Your task to perform on an android device: move an email to a new category in the gmail app Image 0: 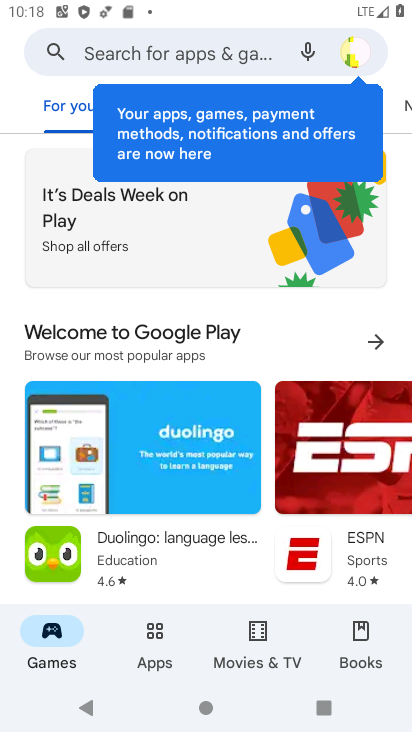
Step 0: press home button
Your task to perform on an android device: move an email to a new category in the gmail app Image 1: 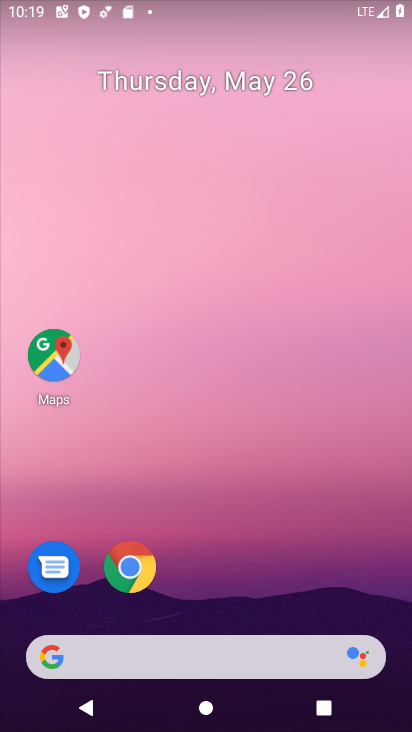
Step 1: drag from (250, 694) to (315, 10)
Your task to perform on an android device: move an email to a new category in the gmail app Image 2: 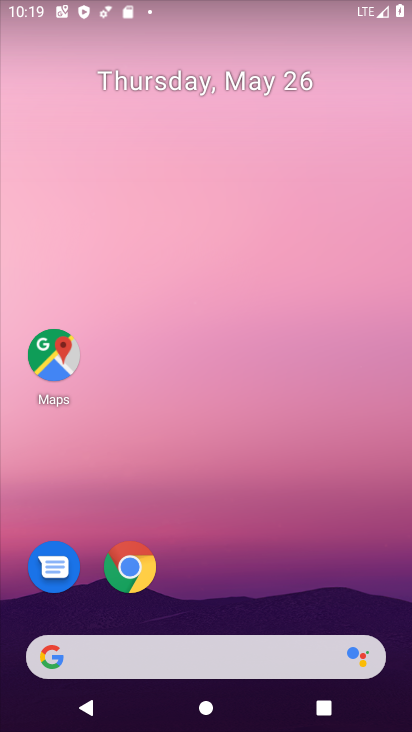
Step 2: drag from (294, 700) to (222, 3)
Your task to perform on an android device: move an email to a new category in the gmail app Image 3: 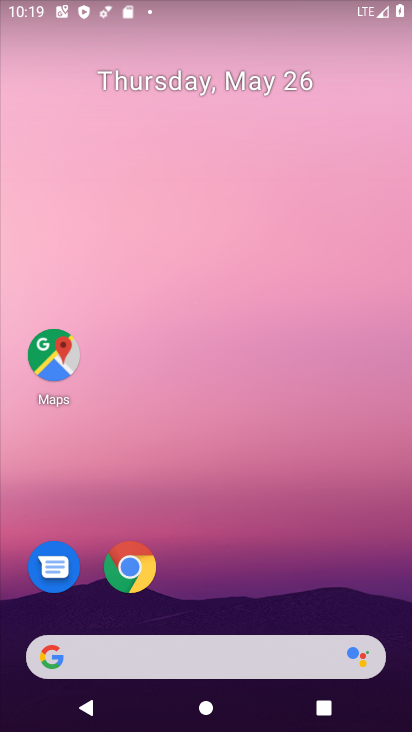
Step 3: drag from (264, 706) to (297, 0)
Your task to perform on an android device: move an email to a new category in the gmail app Image 4: 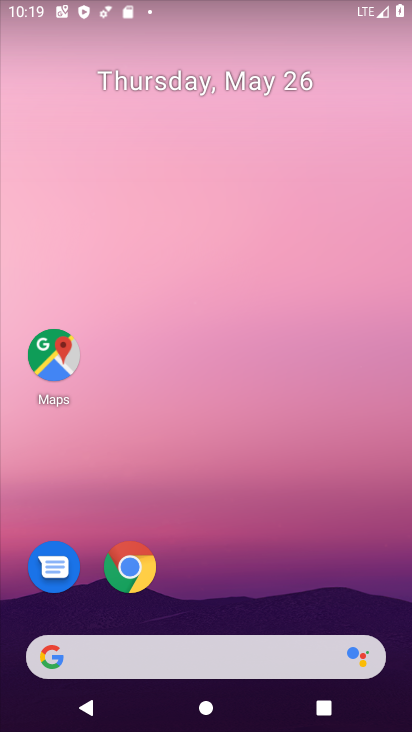
Step 4: drag from (265, 703) to (242, 30)
Your task to perform on an android device: move an email to a new category in the gmail app Image 5: 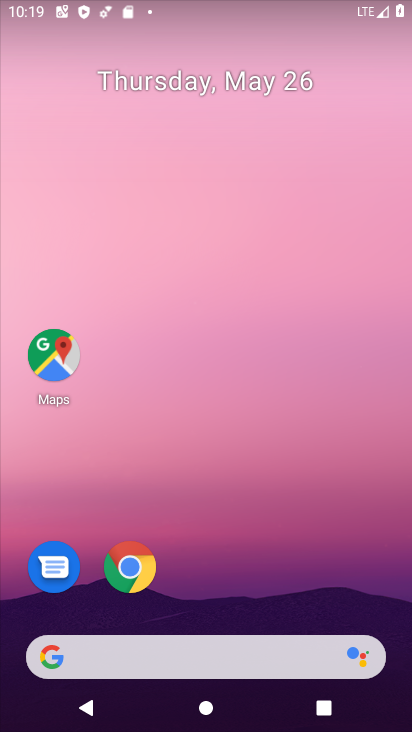
Step 5: drag from (256, 703) to (278, 5)
Your task to perform on an android device: move an email to a new category in the gmail app Image 6: 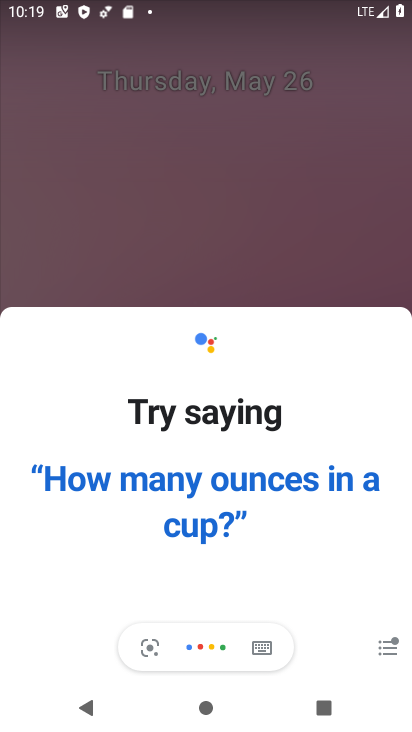
Step 6: press home button
Your task to perform on an android device: move an email to a new category in the gmail app Image 7: 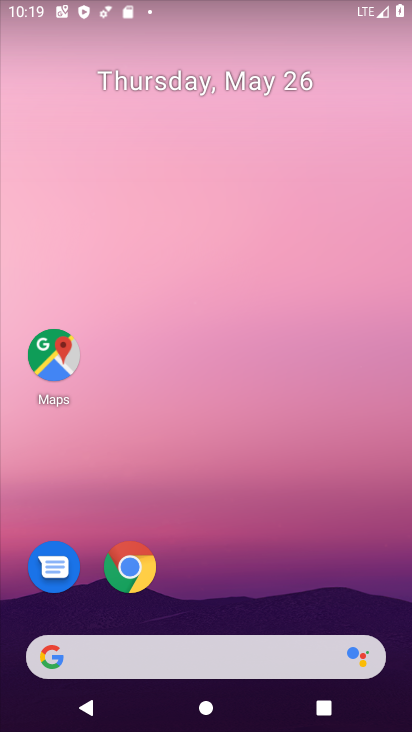
Step 7: drag from (275, 702) to (314, 10)
Your task to perform on an android device: move an email to a new category in the gmail app Image 8: 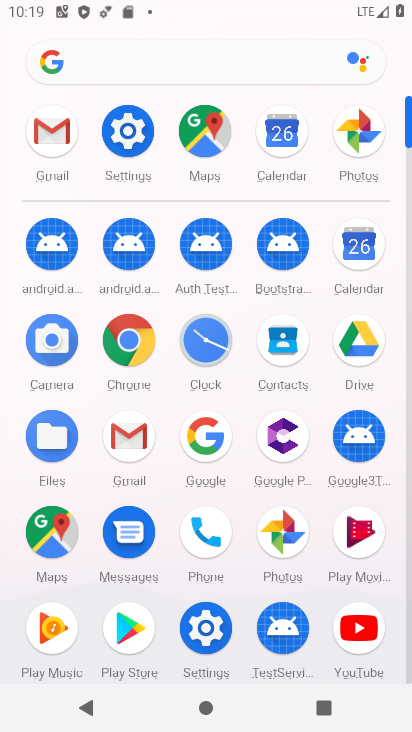
Step 8: click (65, 134)
Your task to perform on an android device: move an email to a new category in the gmail app Image 9: 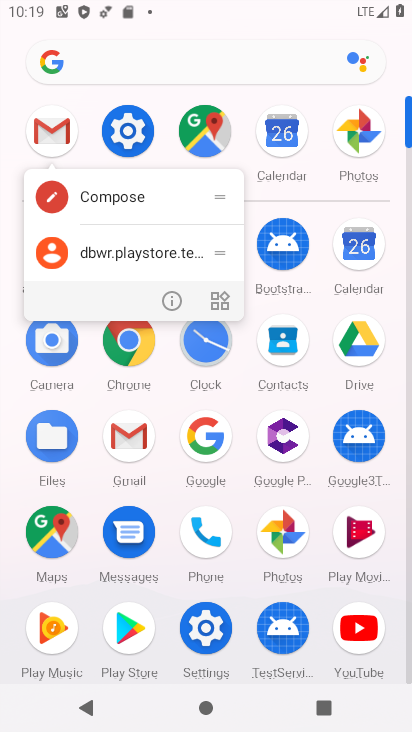
Step 9: click (52, 121)
Your task to perform on an android device: move an email to a new category in the gmail app Image 10: 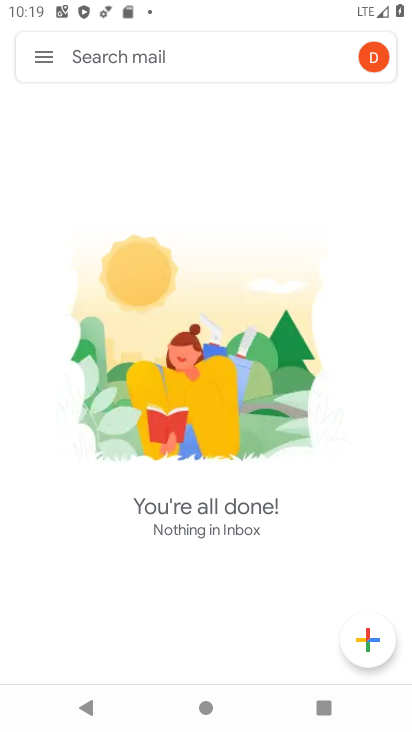
Step 10: task complete